Your task to perform on an android device: Show me popular games on the Play Store Image 0: 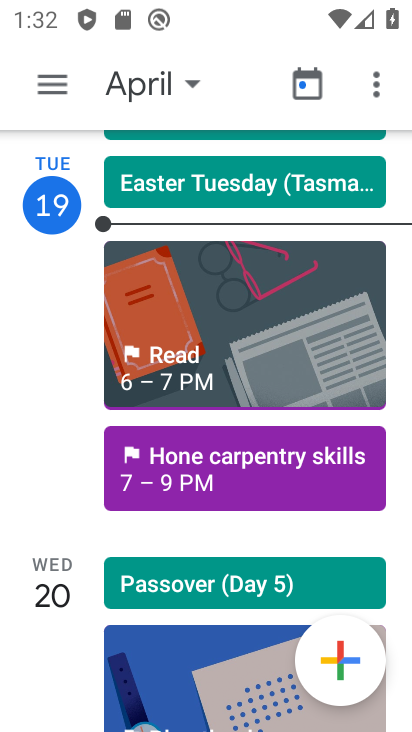
Step 0: press home button
Your task to perform on an android device: Show me popular games on the Play Store Image 1: 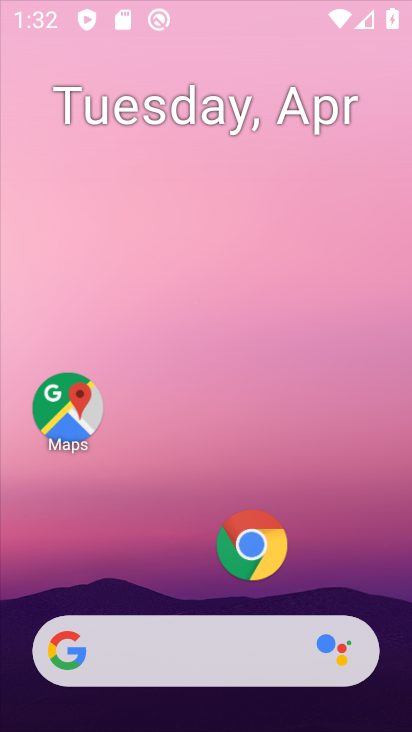
Step 1: drag from (221, 663) to (271, 195)
Your task to perform on an android device: Show me popular games on the Play Store Image 2: 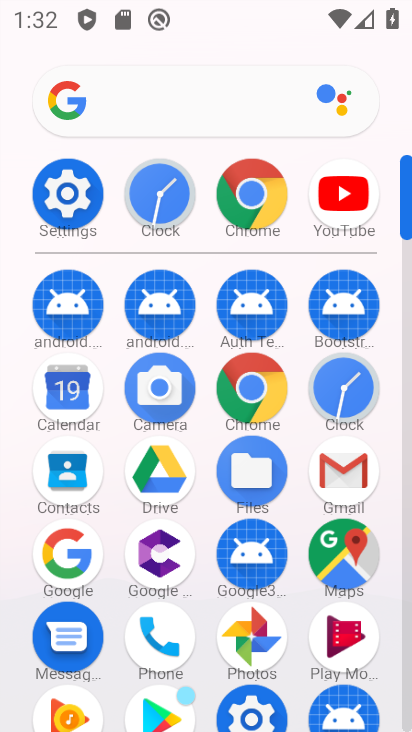
Step 2: drag from (135, 681) to (185, 326)
Your task to perform on an android device: Show me popular games on the Play Store Image 3: 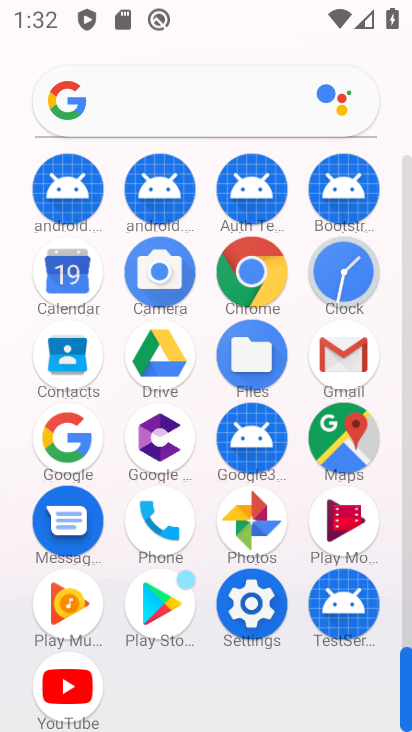
Step 3: click (151, 606)
Your task to perform on an android device: Show me popular games on the Play Store Image 4: 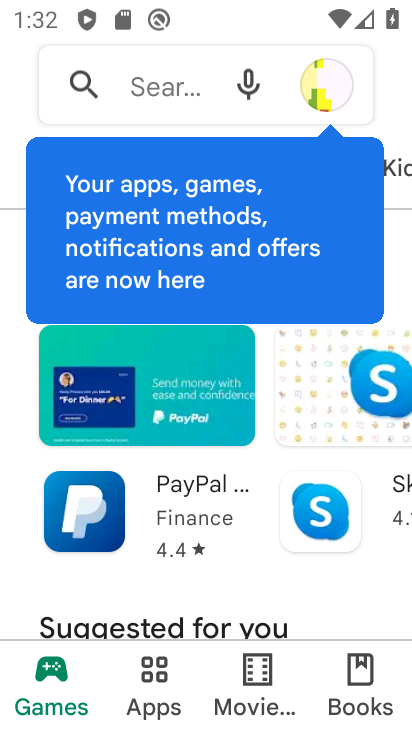
Step 4: click (64, 684)
Your task to perform on an android device: Show me popular games on the Play Store Image 5: 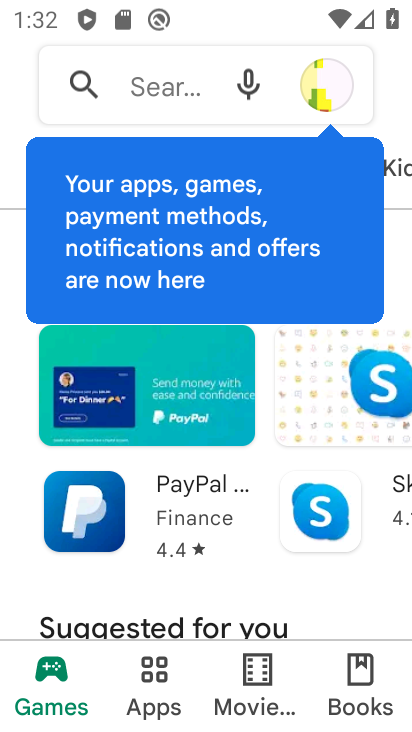
Step 5: click (64, 684)
Your task to perform on an android device: Show me popular games on the Play Store Image 6: 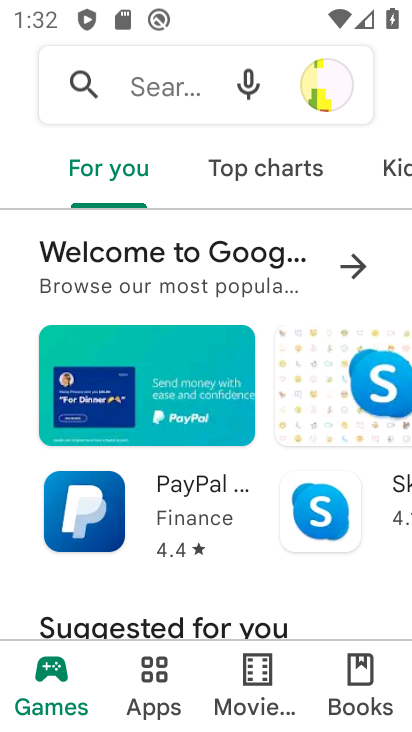
Step 6: click (64, 684)
Your task to perform on an android device: Show me popular games on the Play Store Image 7: 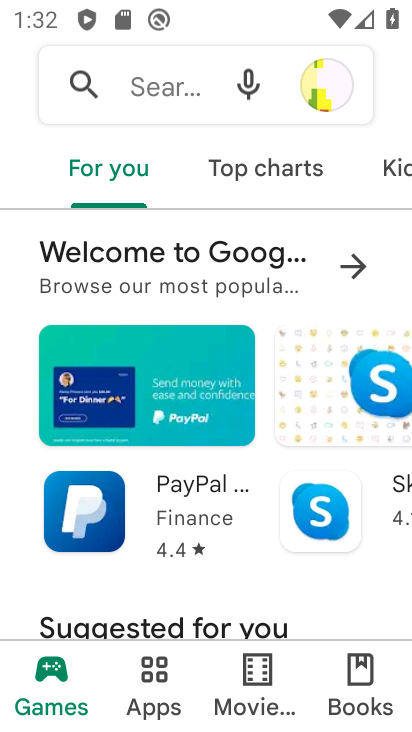
Step 7: click (64, 684)
Your task to perform on an android device: Show me popular games on the Play Store Image 8: 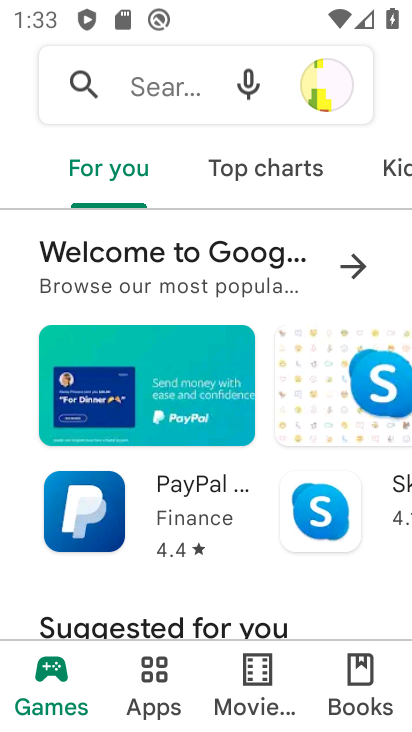
Step 8: click (48, 683)
Your task to perform on an android device: Show me popular games on the Play Store Image 9: 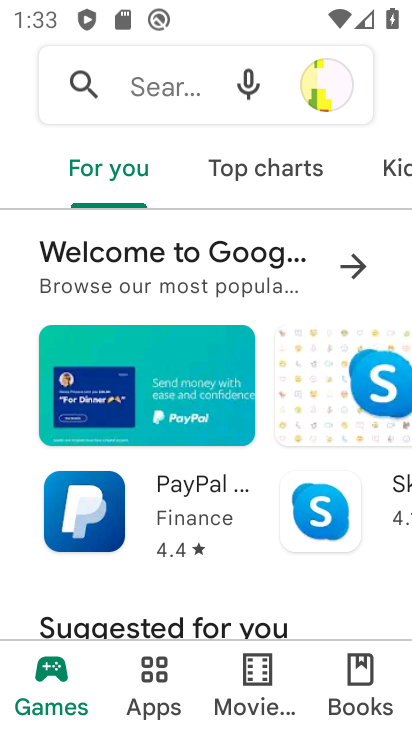
Step 9: task complete